Your task to perform on an android device: Search for vegetarian restaurants on Maps Image 0: 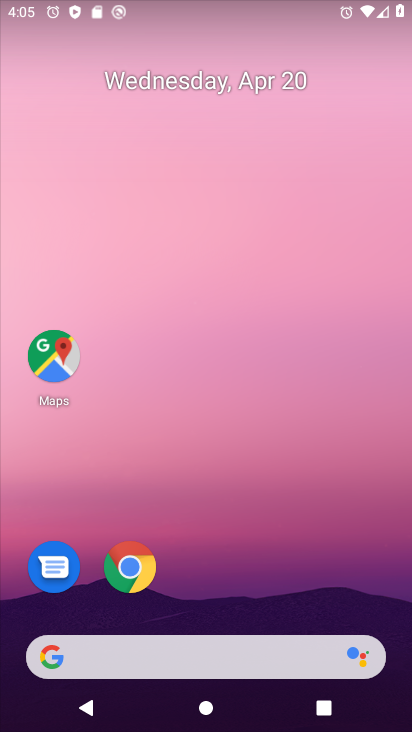
Step 0: click (54, 359)
Your task to perform on an android device: Search for vegetarian restaurants on Maps Image 1: 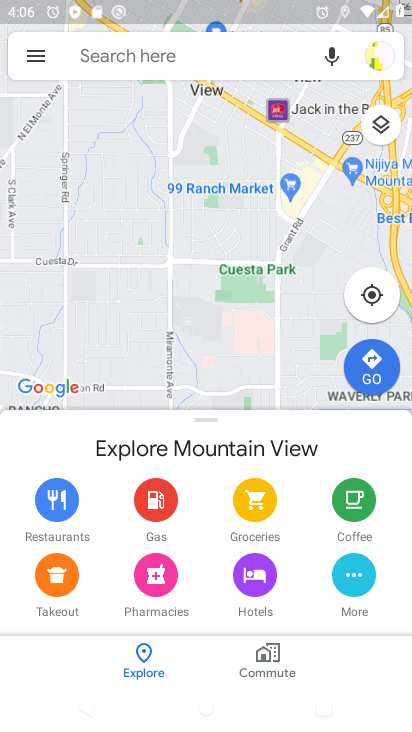
Step 1: click (142, 56)
Your task to perform on an android device: Search for vegetarian restaurants on Maps Image 2: 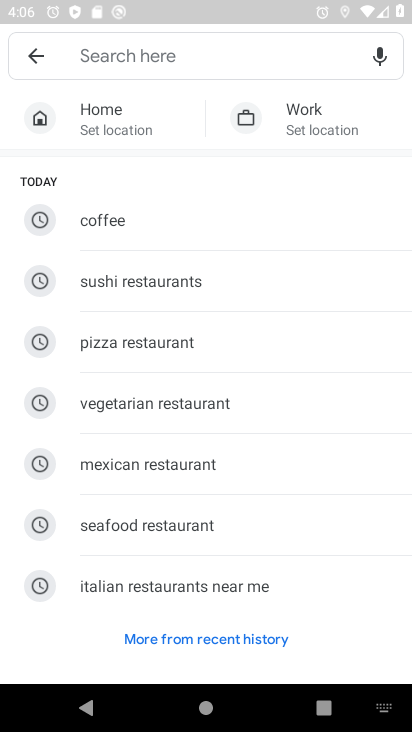
Step 2: click (208, 398)
Your task to perform on an android device: Search for vegetarian restaurants on Maps Image 3: 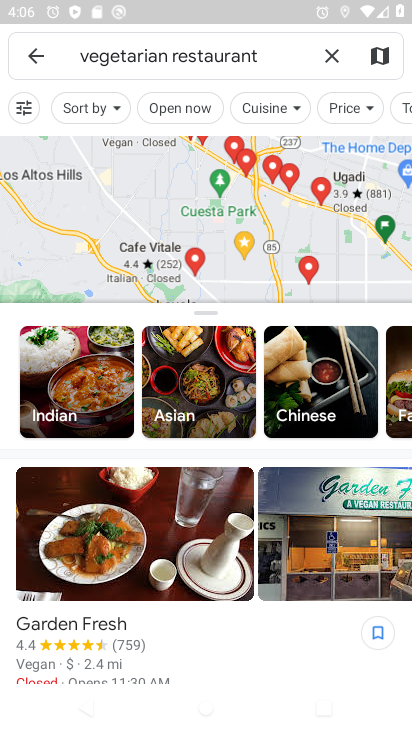
Step 3: task complete